Your task to perform on an android device: open app "Skype" Image 0: 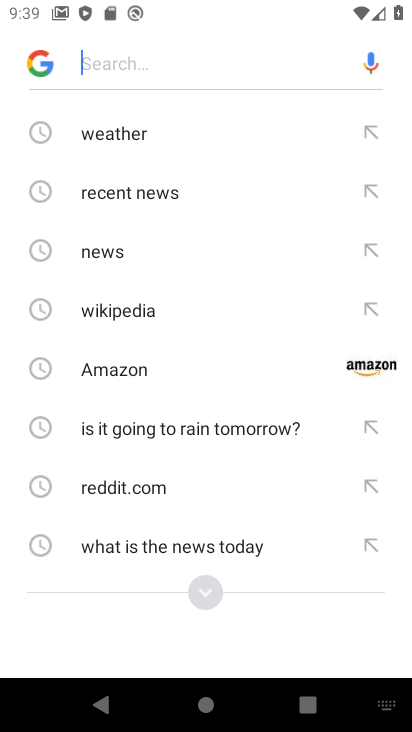
Step 0: press back button
Your task to perform on an android device: open app "Skype" Image 1: 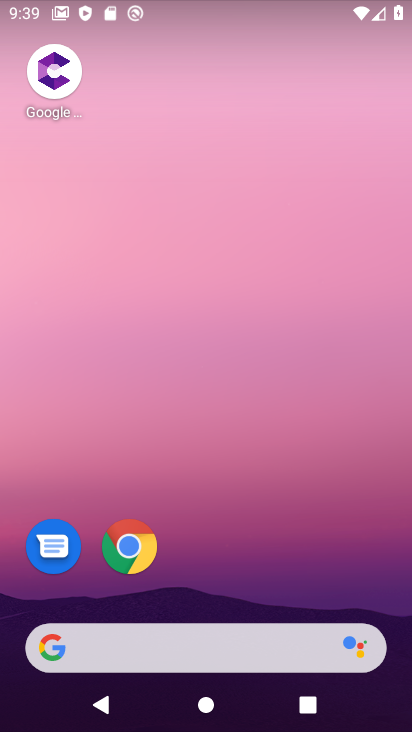
Step 1: drag from (236, 290) to (247, 1)
Your task to perform on an android device: open app "Skype" Image 2: 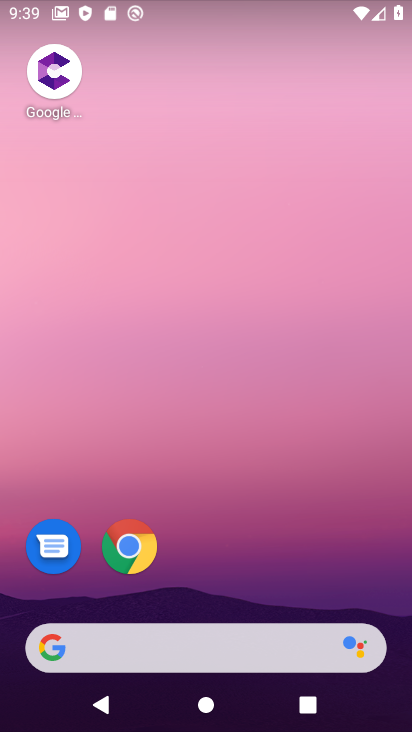
Step 2: drag from (251, 569) to (240, 40)
Your task to perform on an android device: open app "Skype" Image 3: 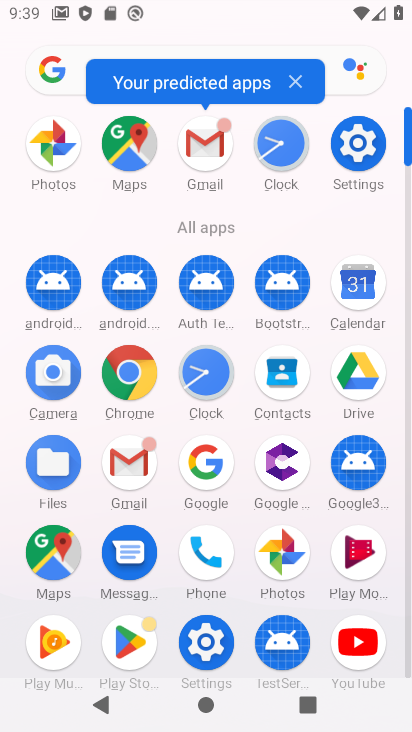
Step 3: click (131, 656)
Your task to perform on an android device: open app "Skype" Image 4: 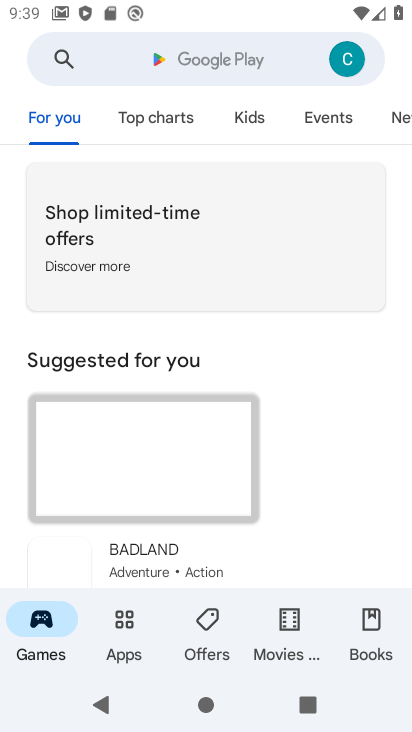
Step 4: click (224, 54)
Your task to perform on an android device: open app "Skype" Image 5: 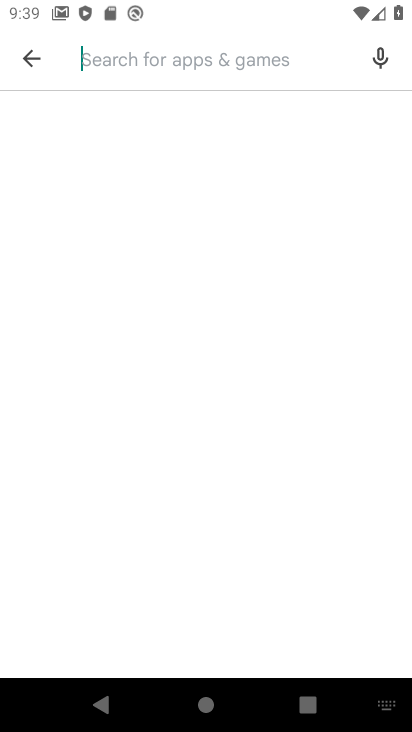
Step 5: click (208, 59)
Your task to perform on an android device: open app "Skype" Image 6: 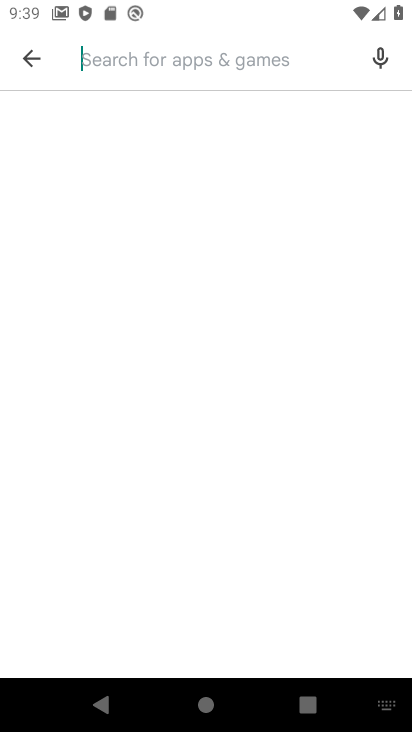
Step 6: type "skype"
Your task to perform on an android device: open app "Skype" Image 7: 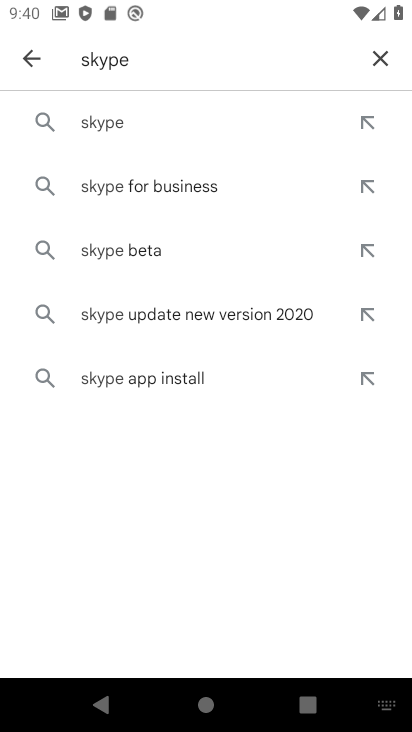
Step 7: click (131, 113)
Your task to perform on an android device: open app "Skype" Image 8: 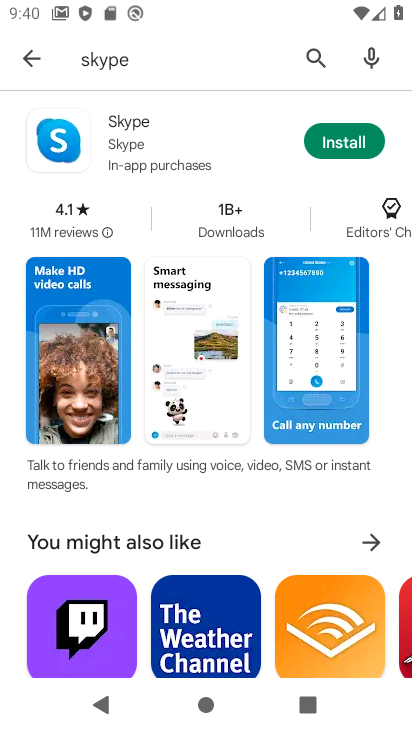
Step 8: task complete